Your task to perform on an android device: Go to Yahoo.com Image 0: 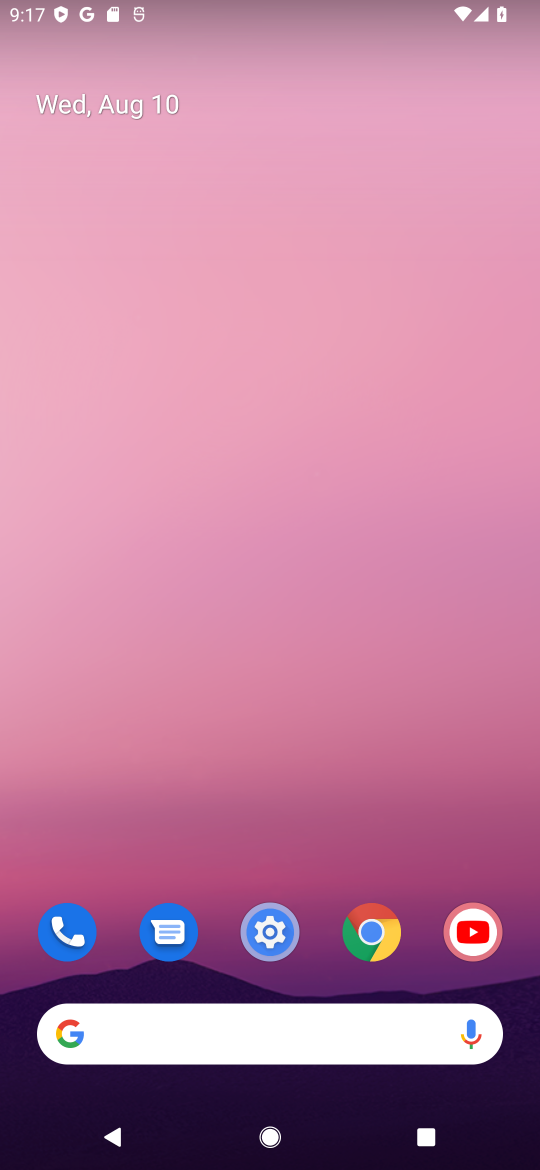
Step 0: click (368, 930)
Your task to perform on an android device: Go to Yahoo.com Image 1: 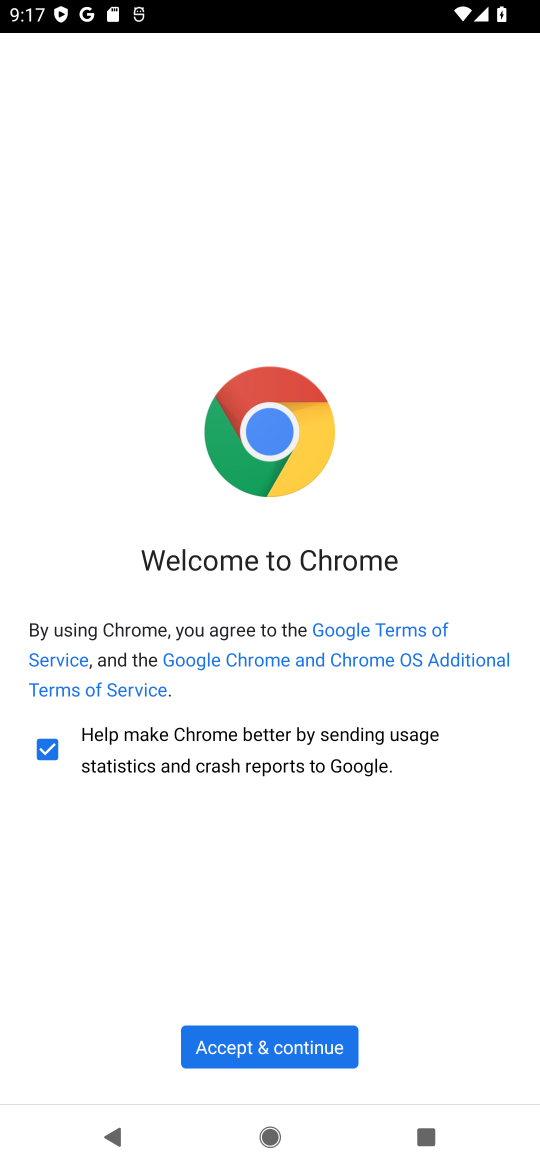
Step 1: click (255, 1038)
Your task to perform on an android device: Go to Yahoo.com Image 2: 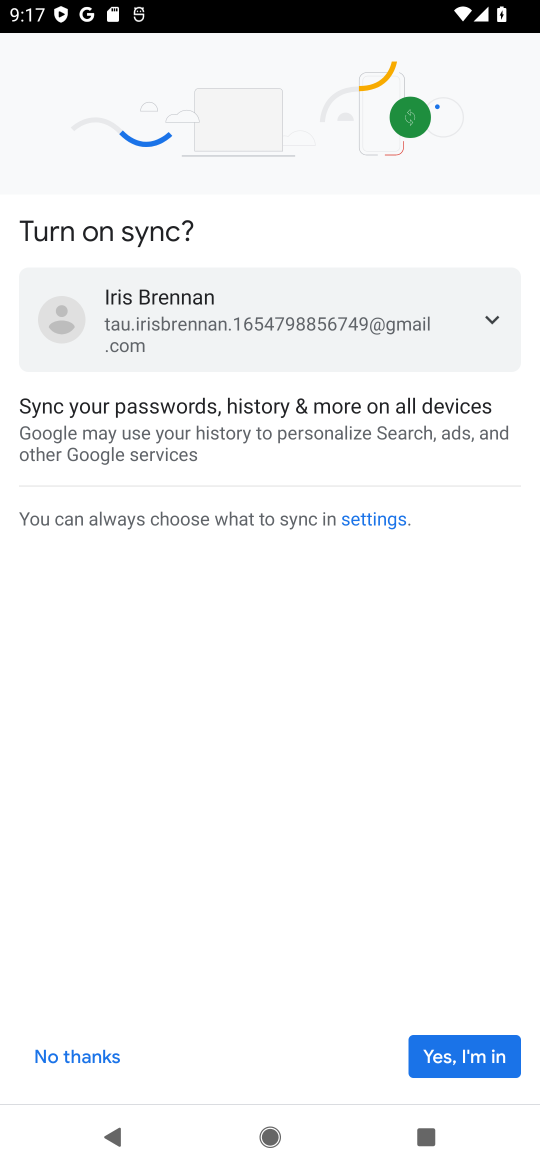
Step 2: click (452, 1059)
Your task to perform on an android device: Go to Yahoo.com Image 3: 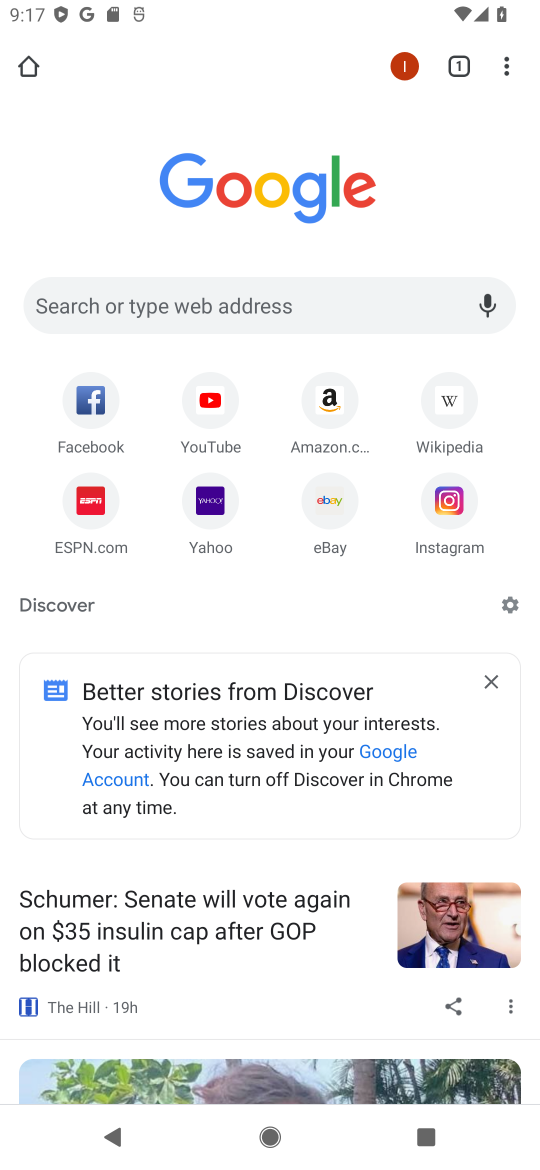
Step 3: click (210, 493)
Your task to perform on an android device: Go to Yahoo.com Image 4: 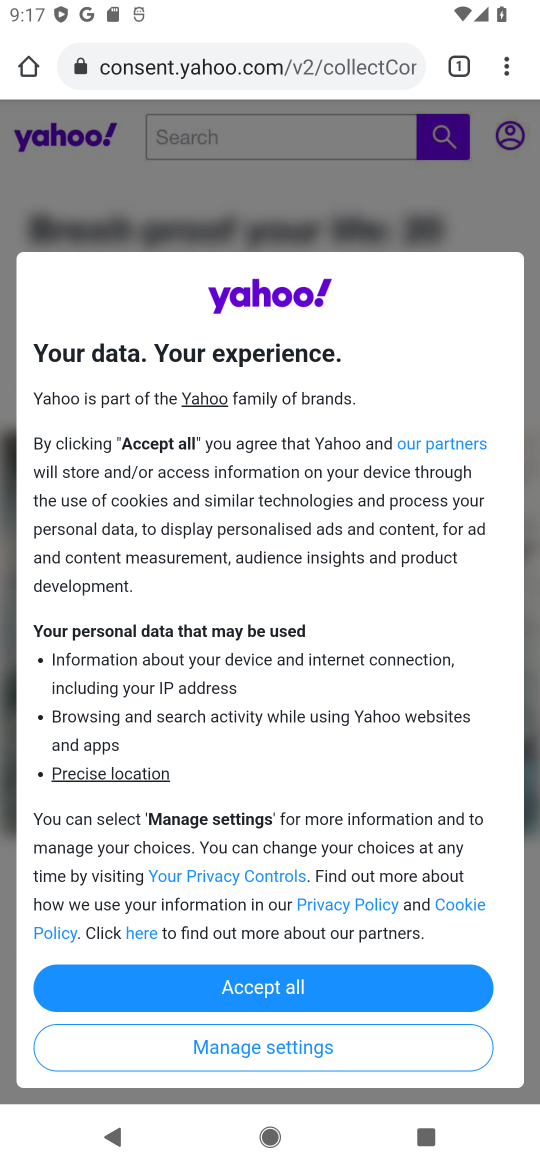
Step 4: click (304, 974)
Your task to perform on an android device: Go to Yahoo.com Image 5: 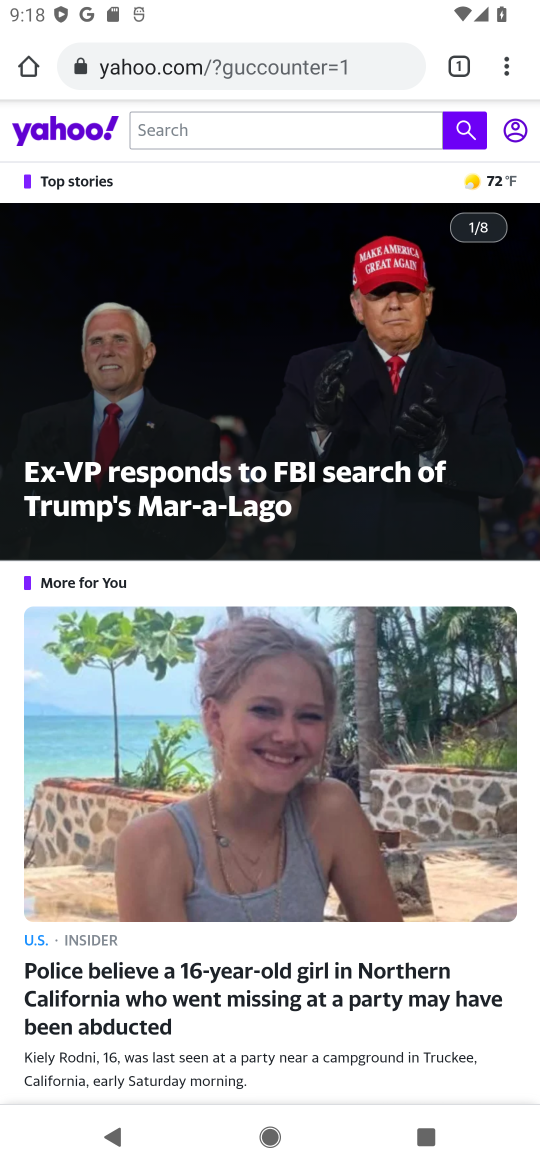
Step 5: task complete